Your task to perform on an android device: toggle sleep mode Image 0: 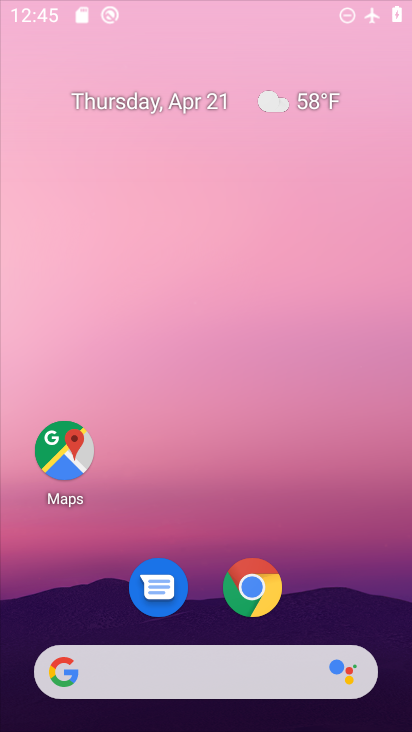
Step 0: click (226, 390)
Your task to perform on an android device: toggle sleep mode Image 1: 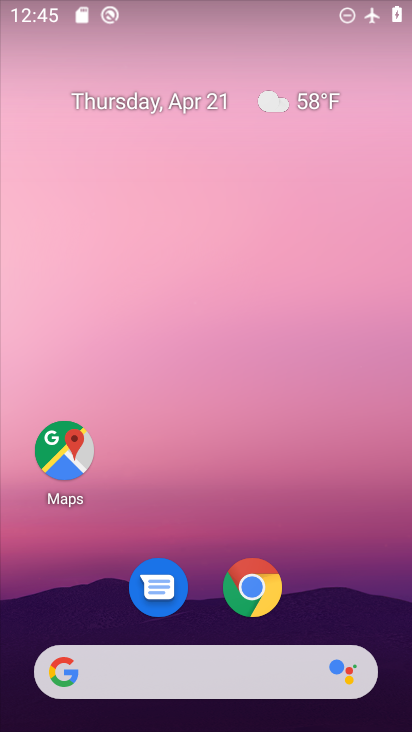
Step 1: drag from (201, 618) to (259, 170)
Your task to perform on an android device: toggle sleep mode Image 2: 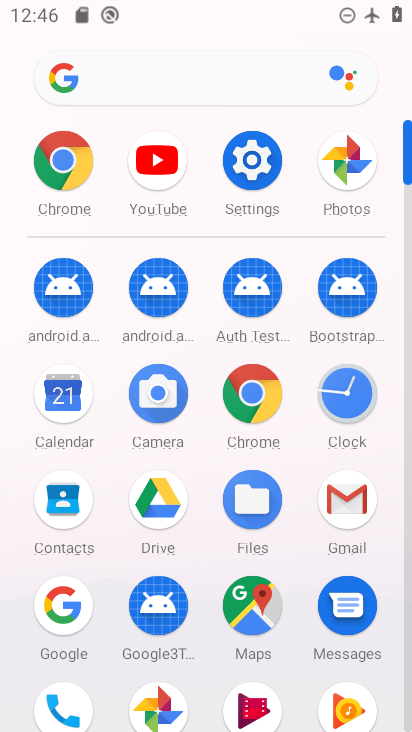
Step 2: click (255, 161)
Your task to perform on an android device: toggle sleep mode Image 3: 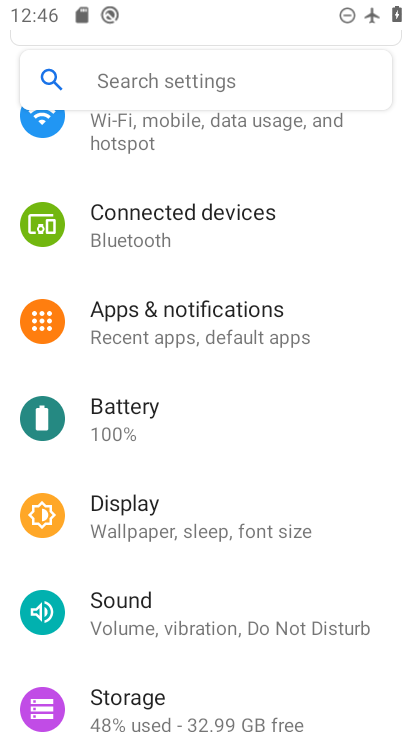
Step 3: click (179, 76)
Your task to perform on an android device: toggle sleep mode Image 4: 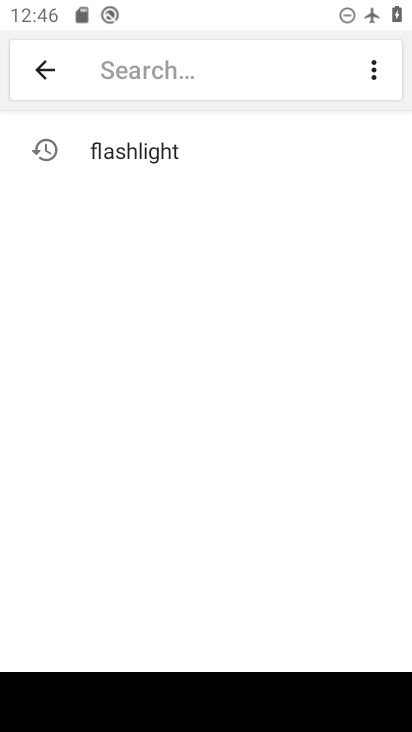
Step 4: type "sleep mode"
Your task to perform on an android device: toggle sleep mode Image 5: 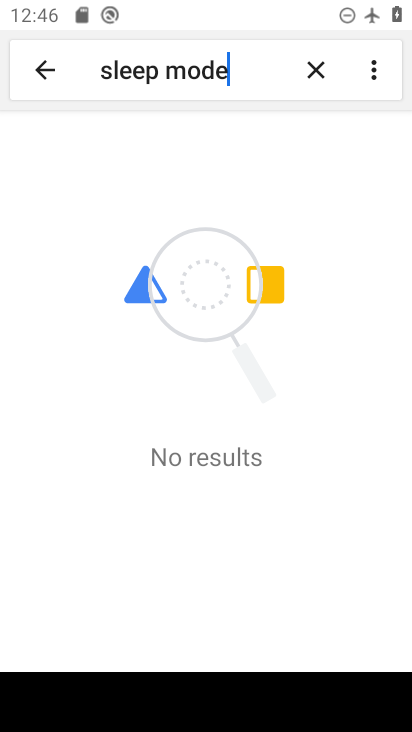
Step 5: task complete